Your task to perform on an android device: manage bookmarks in the chrome app Image 0: 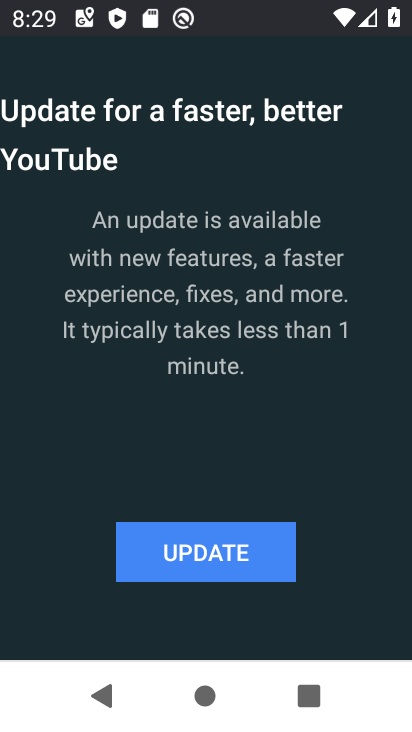
Step 0: press back button
Your task to perform on an android device: manage bookmarks in the chrome app Image 1: 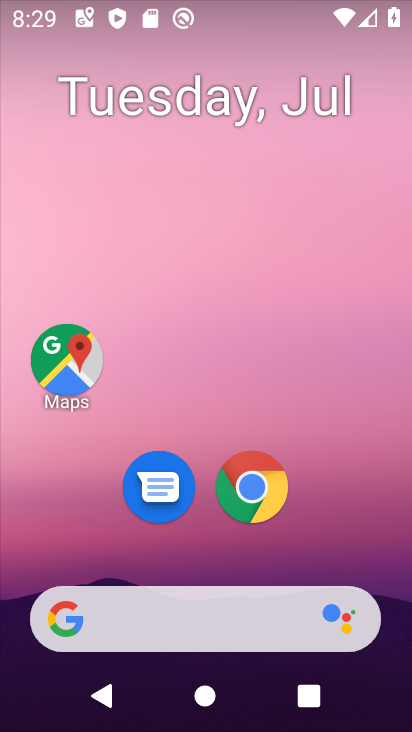
Step 1: click (266, 492)
Your task to perform on an android device: manage bookmarks in the chrome app Image 2: 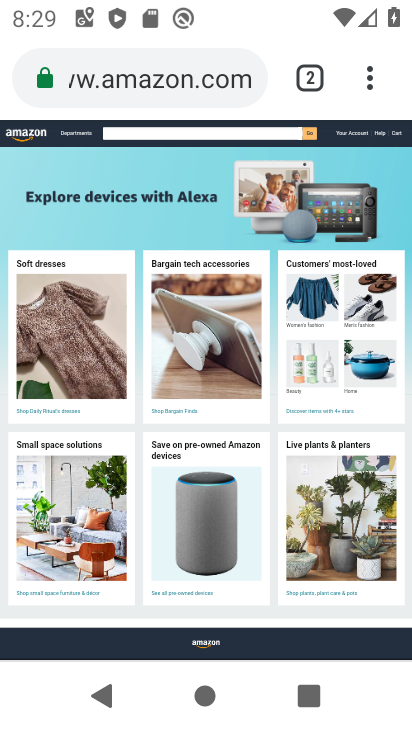
Step 2: drag from (366, 65) to (111, 400)
Your task to perform on an android device: manage bookmarks in the chrome app Image 3: 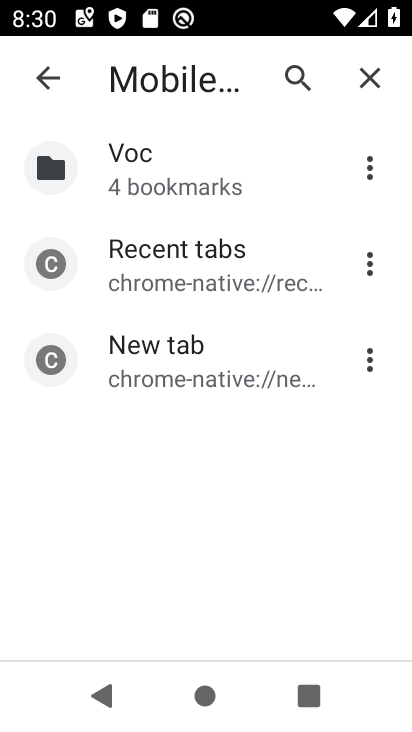
Step 3: click (365, 255)
Your task to perform on an android device: manage bookmarks in the chrome app Image 4: 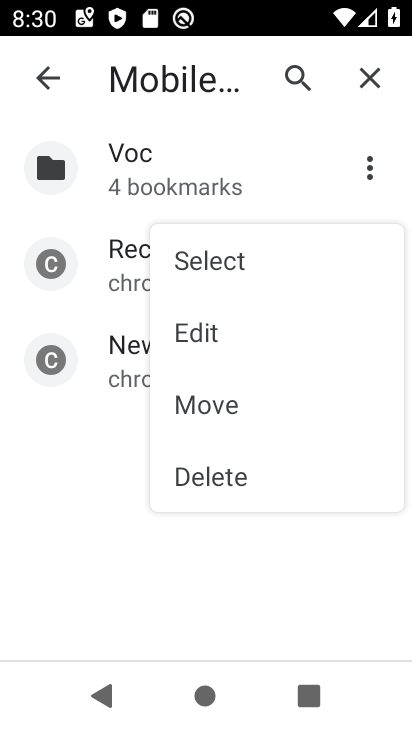
Step 4: click (202, 480)
Your task to perform on an android device: manage bookmarks in the chrome app Image 5: 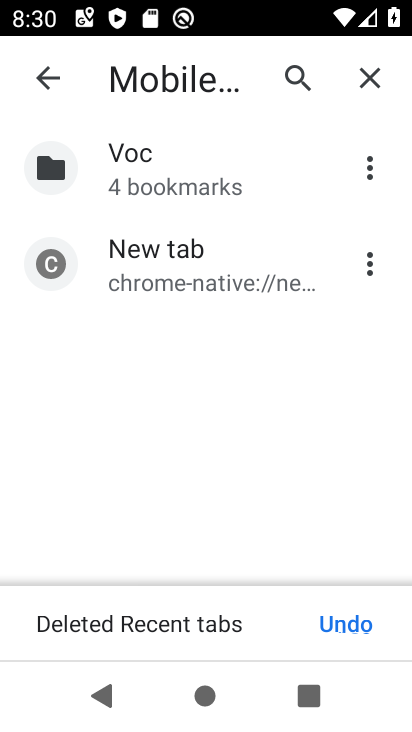
Step 5: task complete